Your task to perform on an android device: Open Maps and search for coffee Image 0: 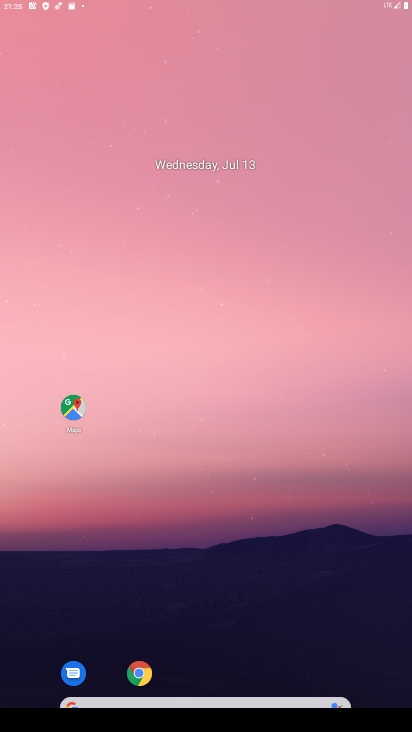
Step 0: drag from (224, 570) to (290, 177)
Your task to perform on an android device: Open Maps and search for coffee Image 1: 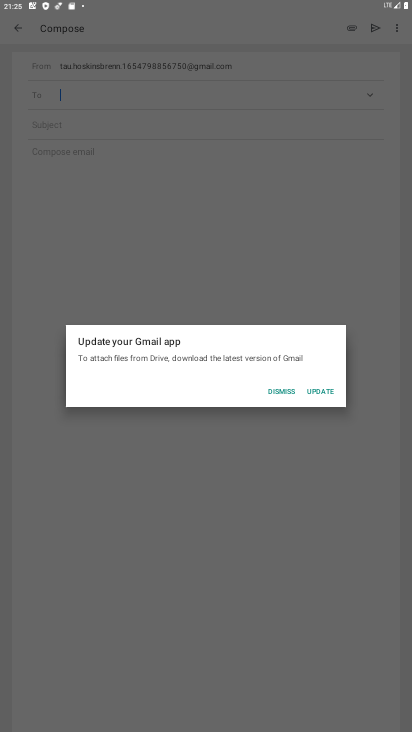
Step 1: click (311, 377)
Your task to perform on an android device: Open Maps and search for coffee Image 2: 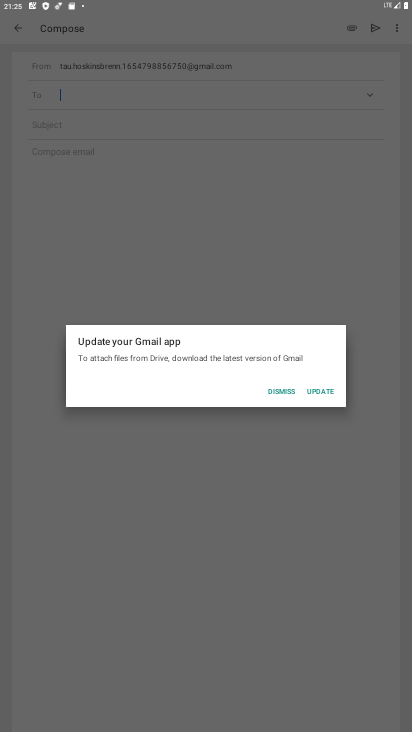
Step 2: click (282, 397)
Your task to perform on an android device: Open Maps and search for coffee Image 3: 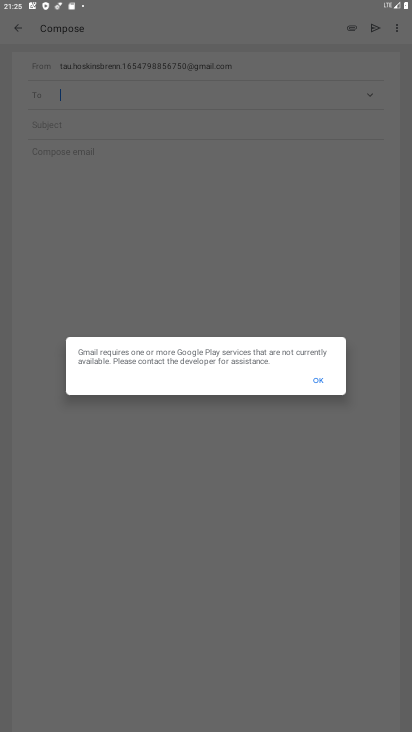
Step 3: press home button
Your task to perform on an android device: Open Maps and search for coffee Image 4: 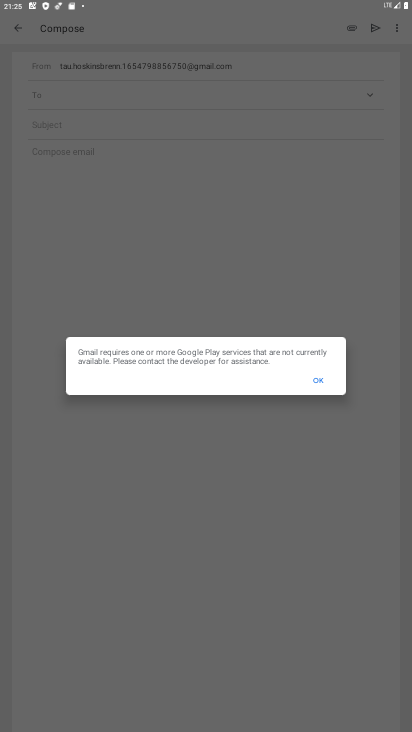
Step 4: drag from (247, 545) to (287, 151)
Your task to perform on an android device: Open Maps and search for coffee Image 5: 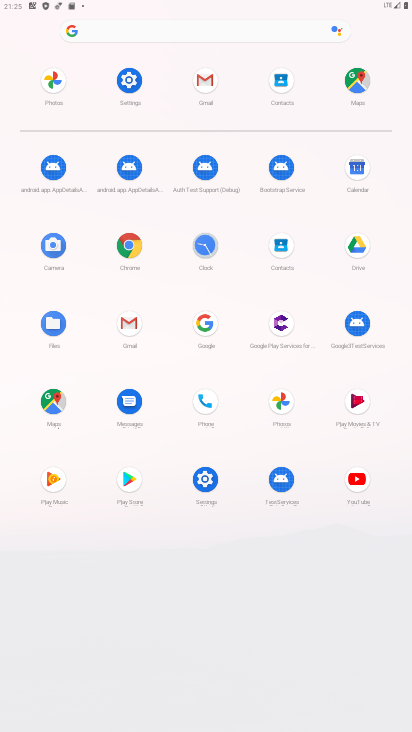
Step 5: click (53, 401)
Your task to perform on an android device: Open Maps and search for coffee Image 6: 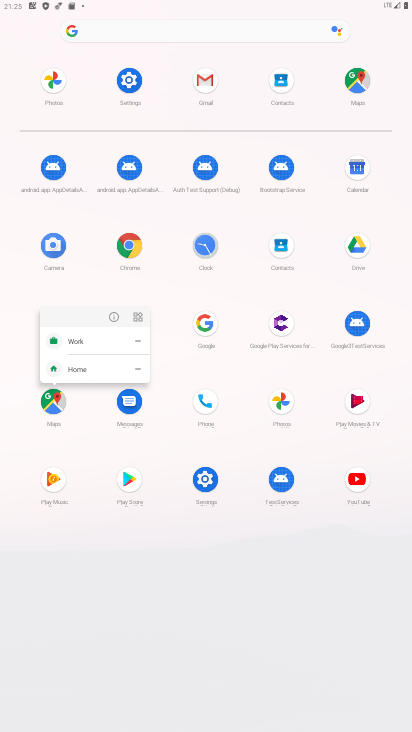
Step 6: click (111, 318)
Your task to perform on an android device: Open Maps and search for coffee Image 7: 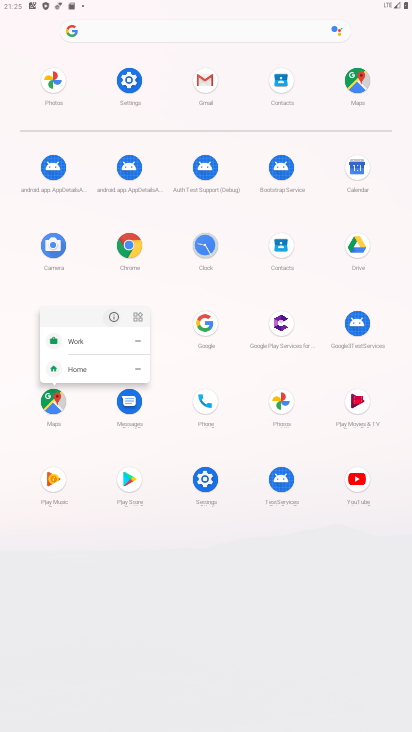
Step 7: click (111, 318)
Your task to perform on an android device: Open Maps and search for coffee Image 8: 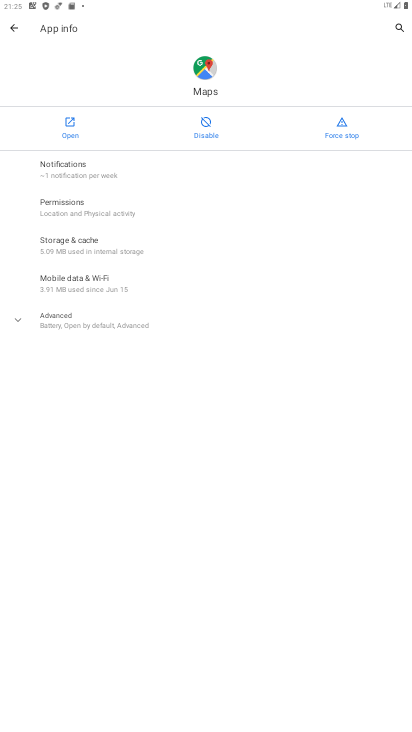
Step 8: click (66, 120)
Your task to perform on an android device: Open Maps and search for coffee Image 9: 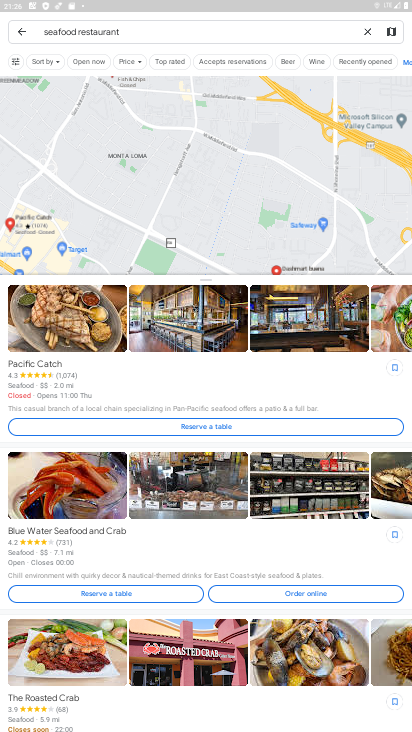
Step 9: click (138, 28)
Your task to perform on an android device: Open Maps and search for coffee Image 10: 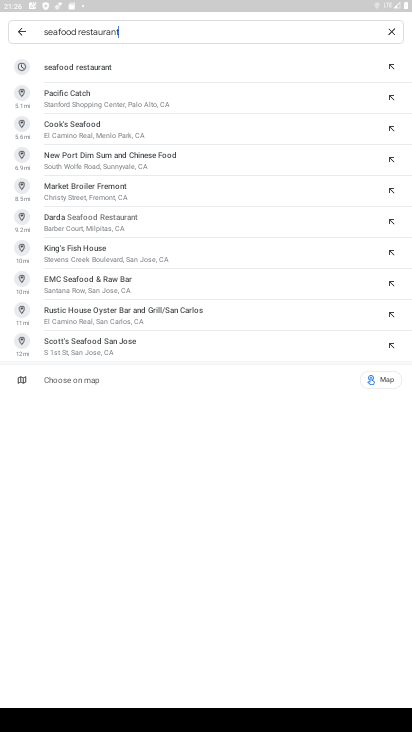
Step 10: click (393, 28)
Your task to perform on an android device: Open Maps and search for coffee Image 11: 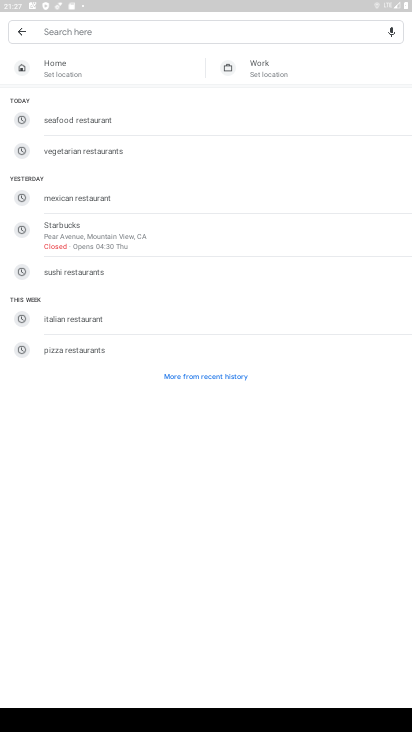
Step 11: click (97, 26)
Your task to perform on an android device: Open Maps and search for coffee Image 12: 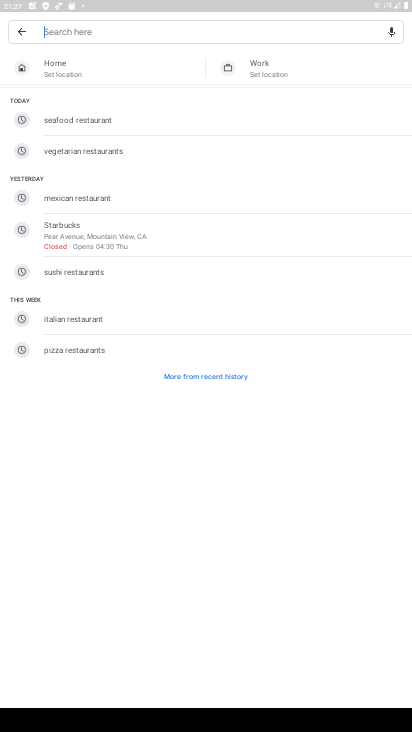
Step 12: type "coffee"
Your task to perform on an android device: Open Maps and search for coffee Image 13: 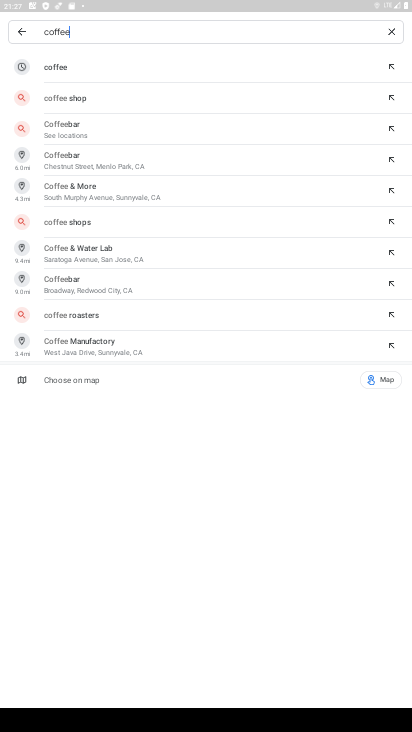
Step 13: click (87, 60)
Your task to perform on an android device: Open Maps and search for coffee Image 14: 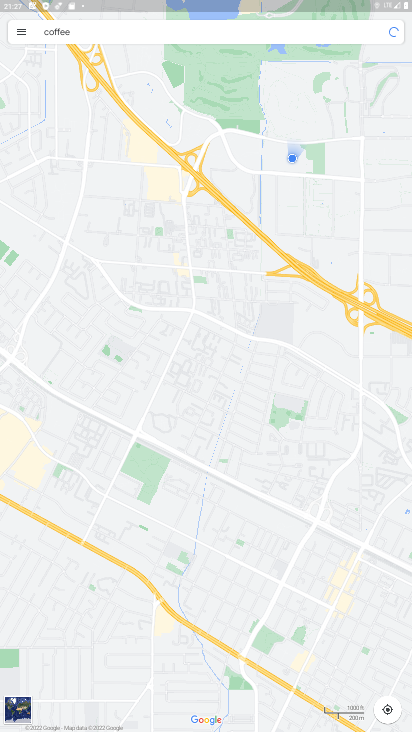
Step 14: task complete